Your task to perform on an android device: add a contact Image 0: 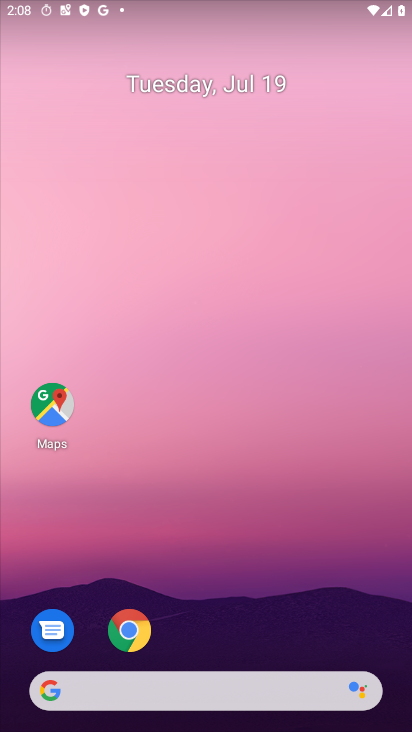
Step 0: drag from (257, 616) to (301, 27)
Your task to perform on an android device: add a contact Image 1: 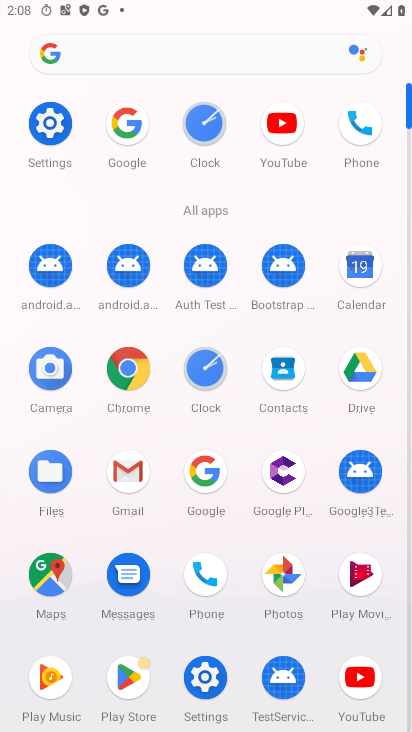
Step 1: click (276, 375)
Your task to perform on an android device: add a contact Image 2: 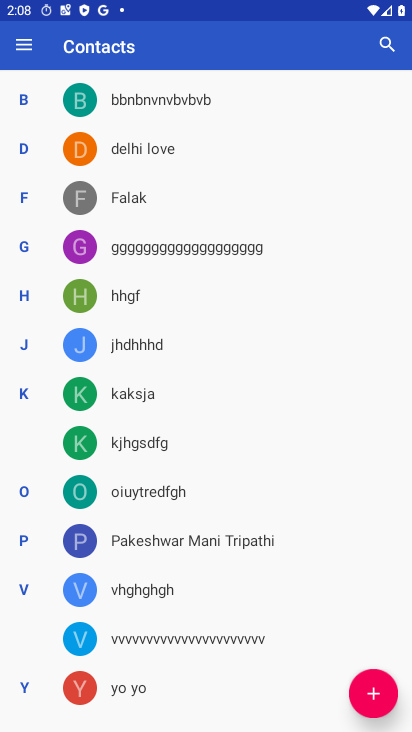
Step 2: click (364, 681)
Your task to perform on an android device: add a contact Image 3: 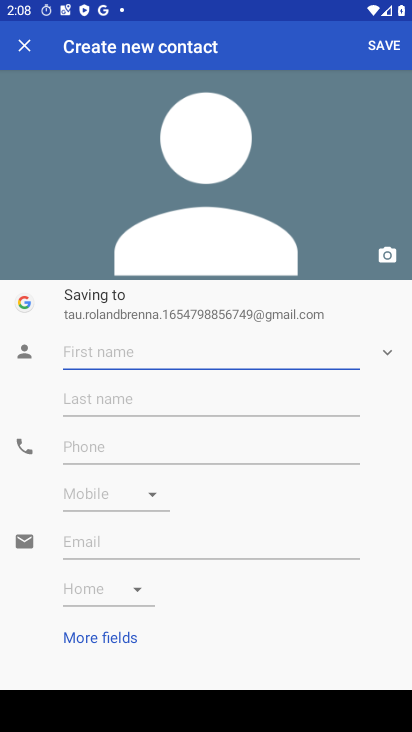
Step 3: type "mk"
Your task to perform on an android device: add a contact Image 4: 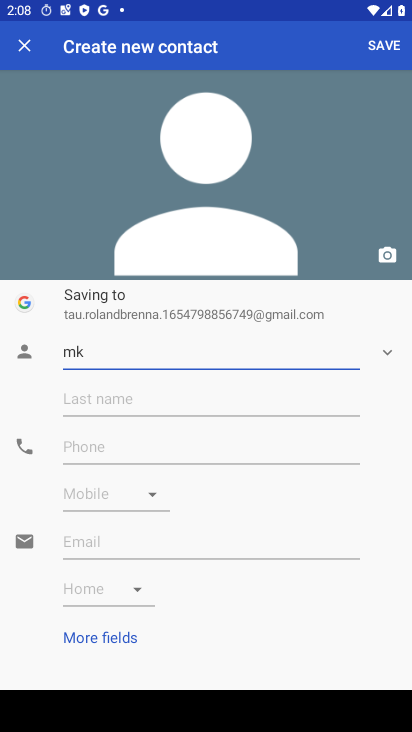
Step 4: click (87, 456)
Your task to perform on an android device: add a contact Image 5: 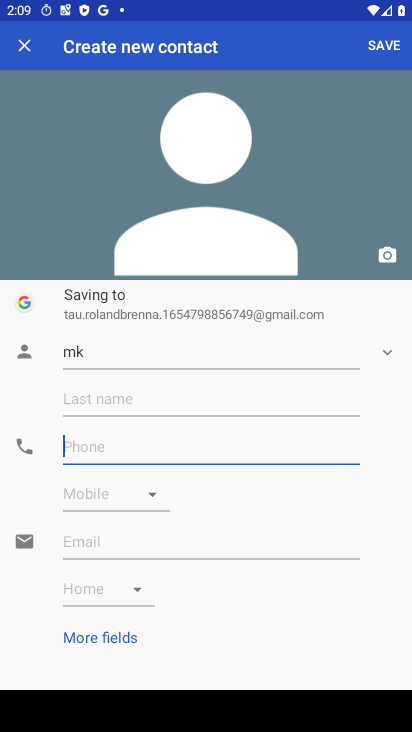
Step 5: type "4536271890"
Your task to perform on an android device: add a contact Image 6: 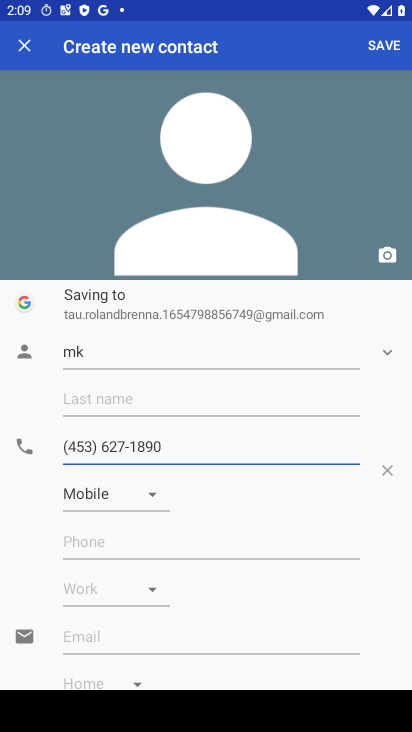
Step 6: click (391, 49)
Your task to perform on an android device: add a contact Image 7: 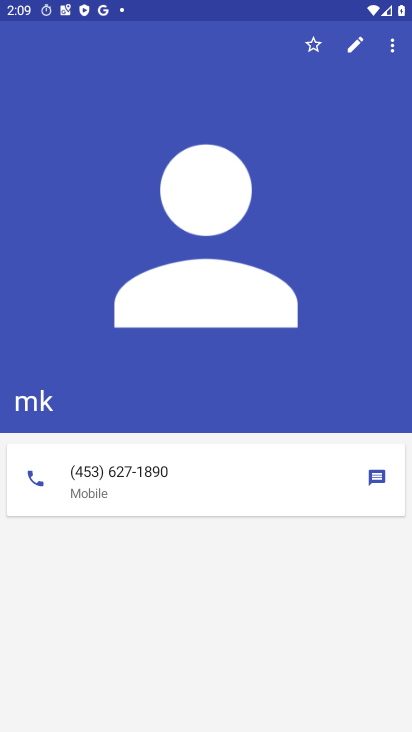
Step 7: task complete